Your task to perform on an android device: Open ESPN.com Image 0: 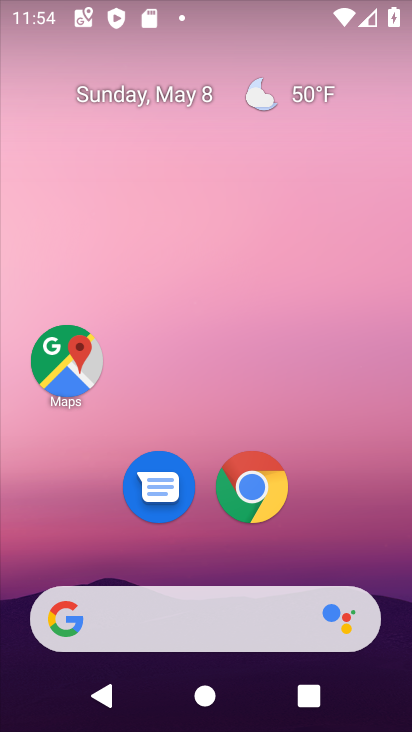
Step 0: click (268, 499)
Your task to perform on an android device: Open ESPN.com Image 1: 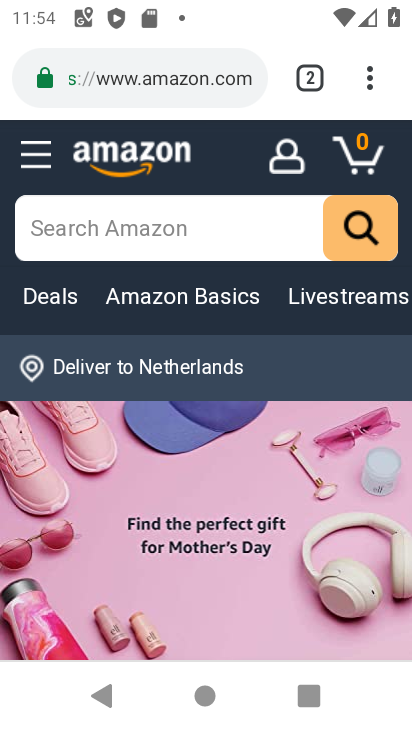
Step 1: click (170, 92)
Your task to perform on an android device: Open ESPN.com Image 2: 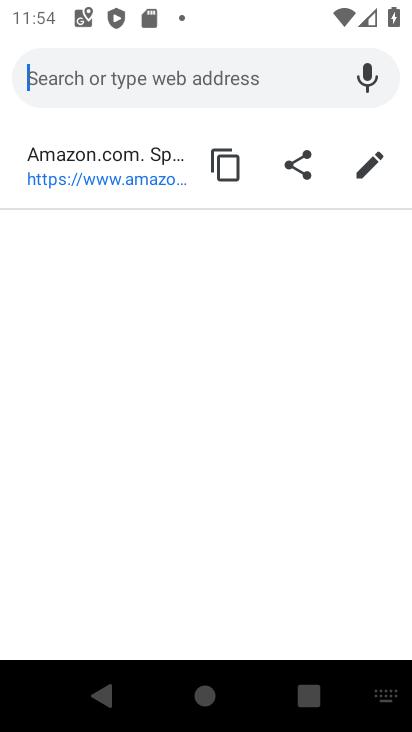
Step 2: type "ESPN.com"
Your task to perform on an android device: Open ESPN.com Image 3: 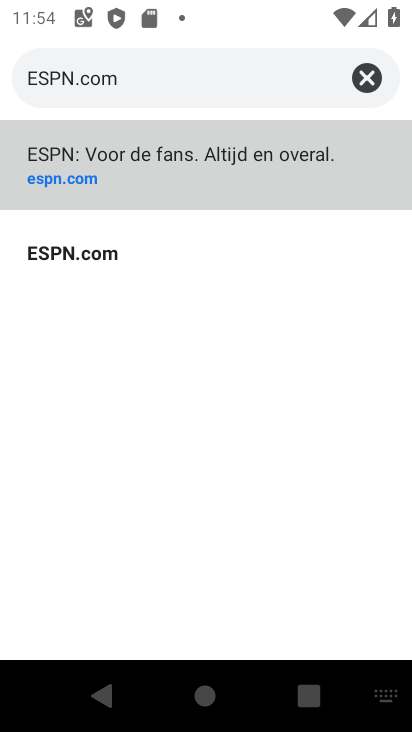
Step 3: click (69, 176)
Your task to perform on an android device: Open ESPN.com Image 4: 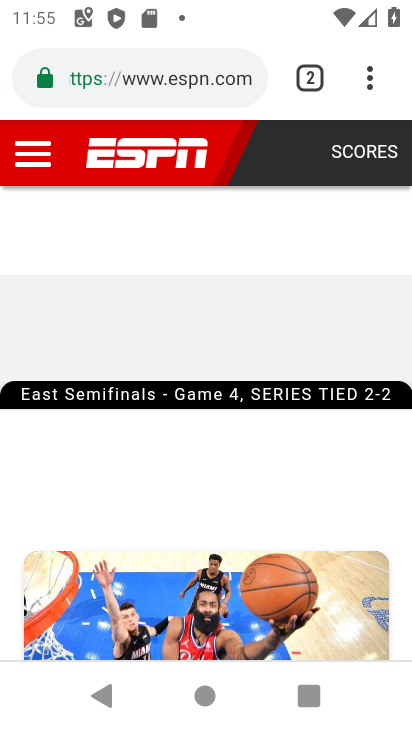
Step 4: task complete